Your task to perform on an android device: turn off data saver in the chrome app Image 0: 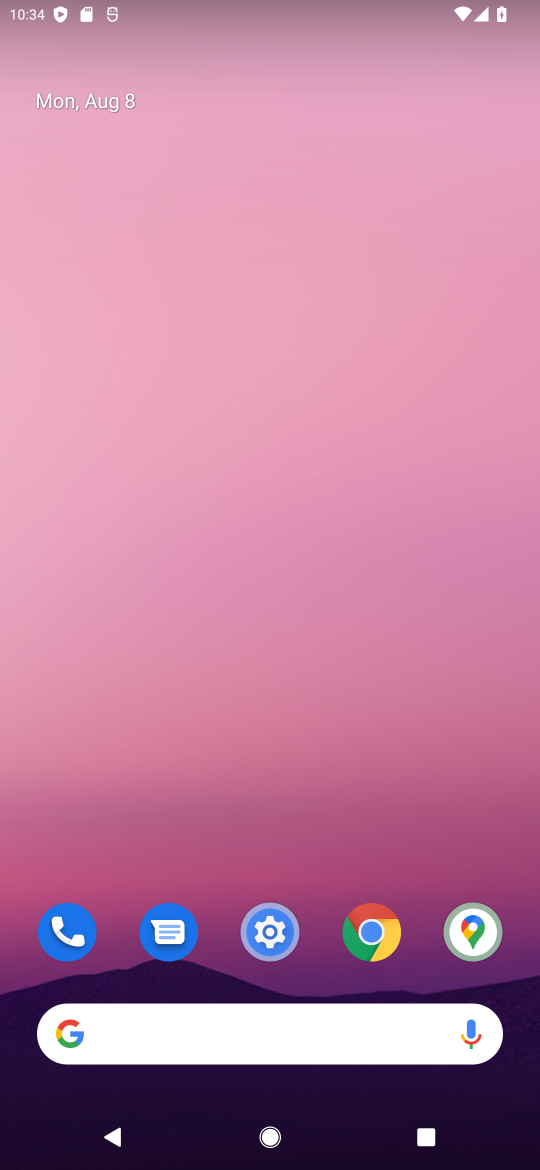
Step 0: click (362, 938)
Your task to perform on an android device: turn off data saver in the chrome app Image 1: 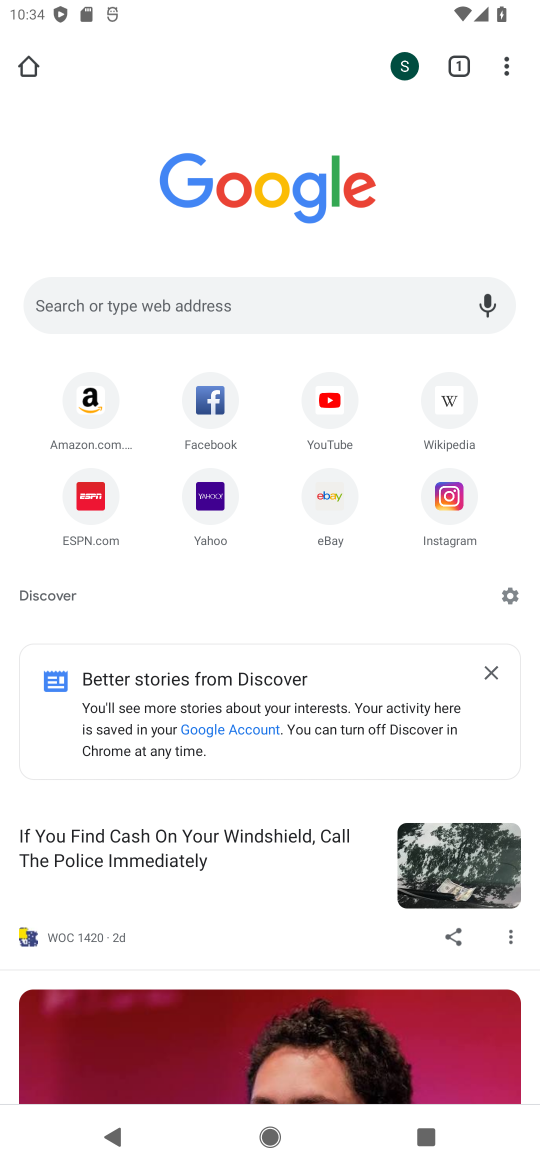
Step 1: click (521, 73)
Your task to perform on an android device: turn off data saver in the chrome app Image 2: 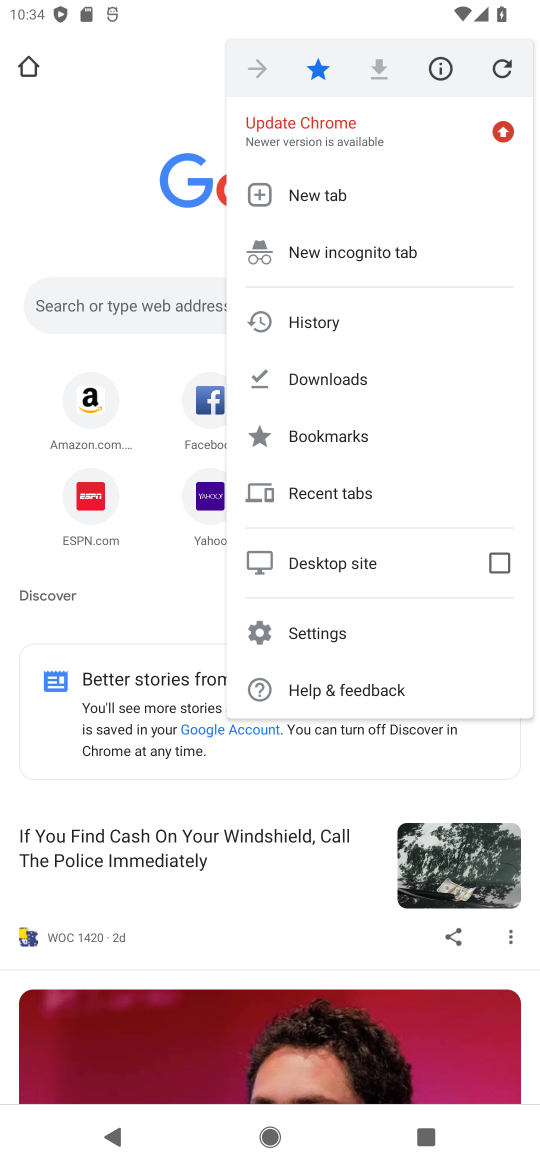
Step 2: click (340, 645)
Your task to perform on an android device: turn off data saver in the chrome app Image 3: 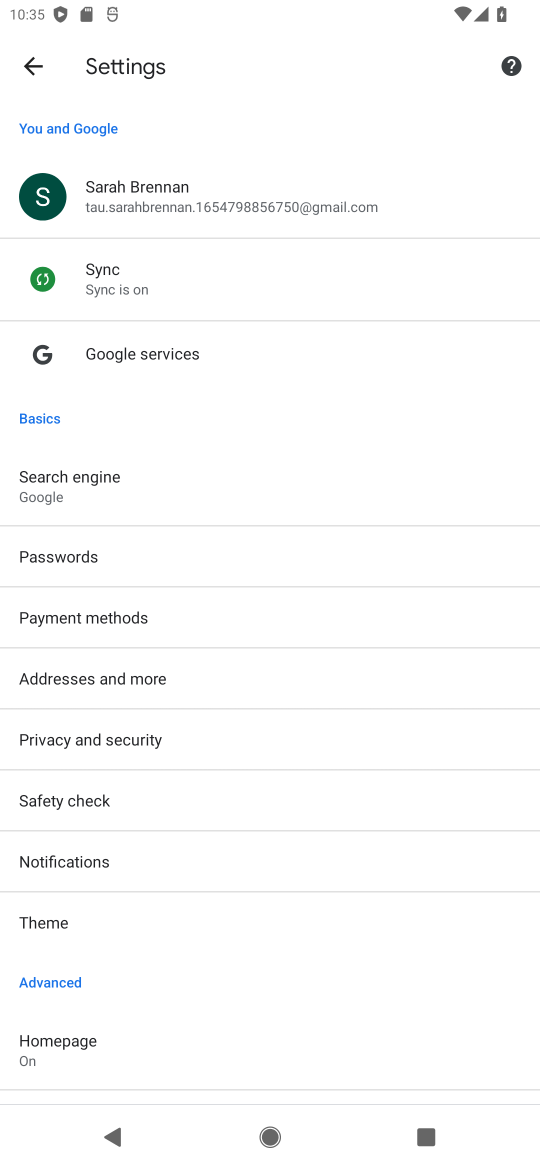
Step 3: drag from (98, 888) to (150, 366)
Your task to perform on an android device: turn off data saver in the chrome app Image 4: 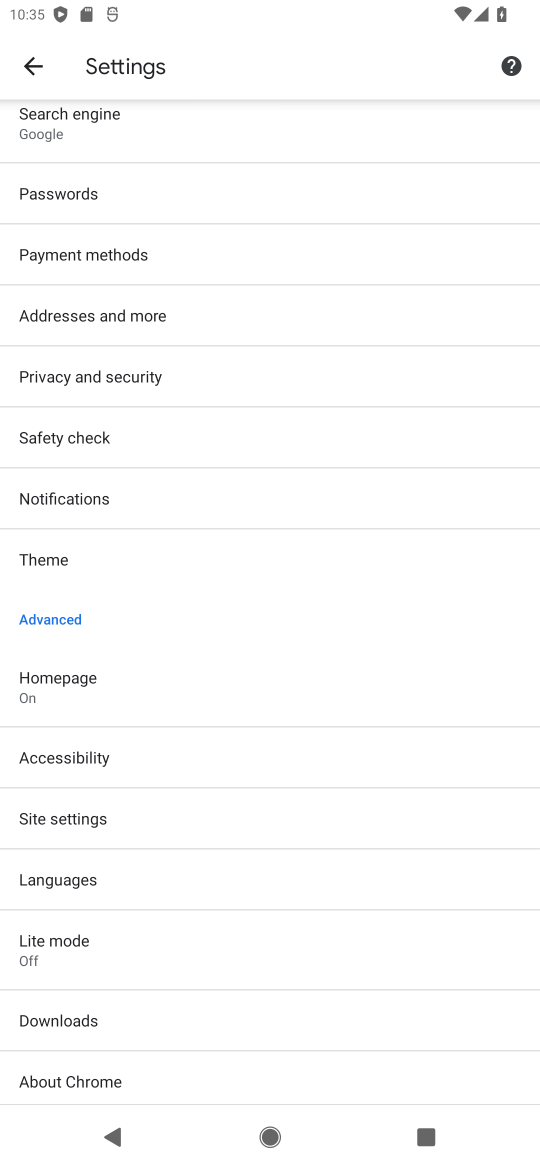
Step 4: drag from (204, 699) to (233, 408)
Your task to perform on an android device: turn off data saver in the chrome app Image 5: 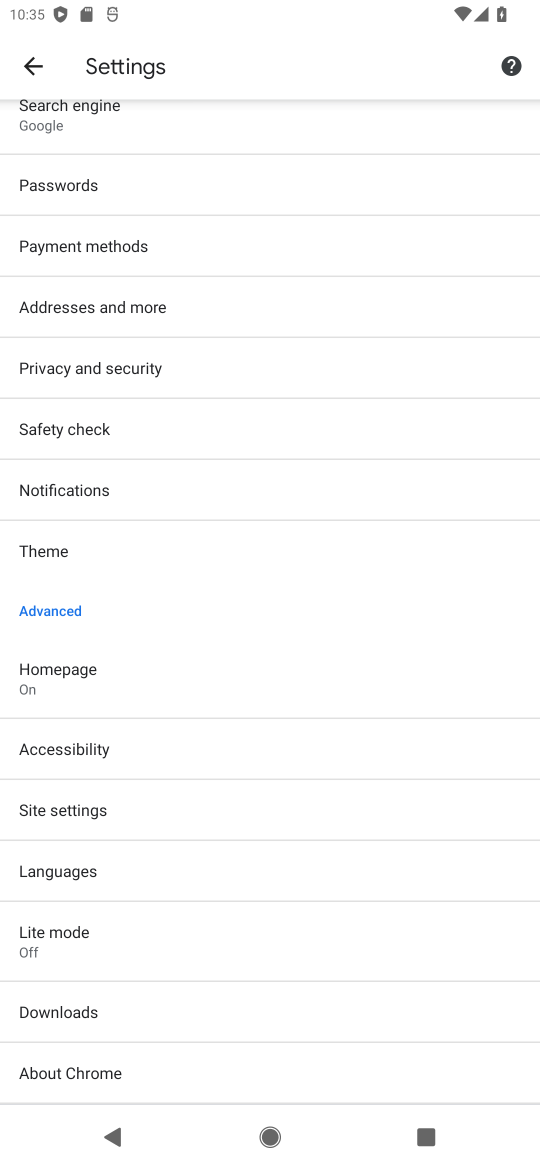
Step 5: click (138, 922)
Your task to perform on an android device: turn off data saver in the chrome app Image 6: 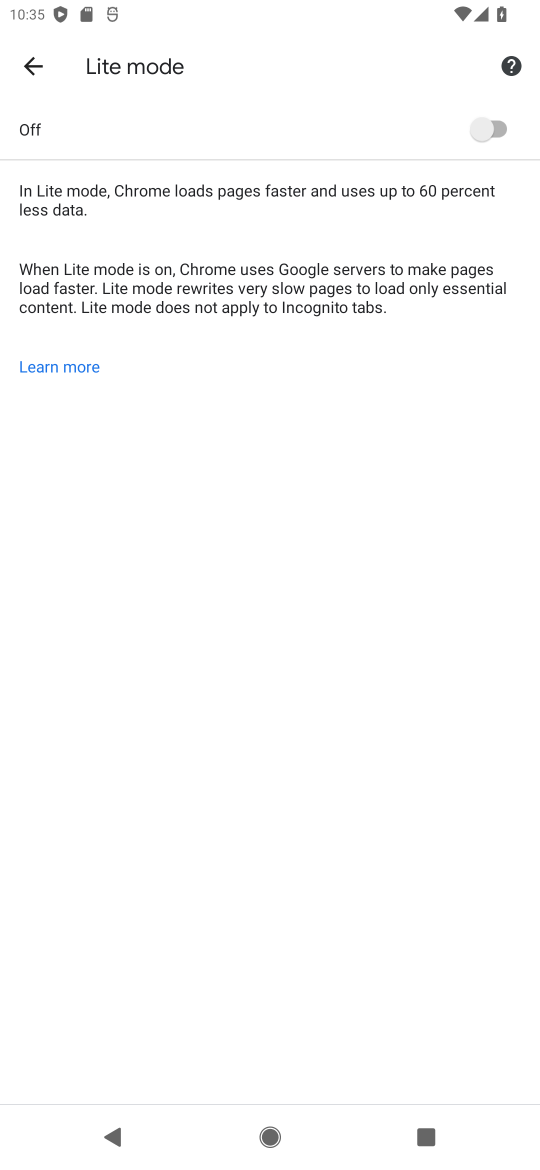
Step 6: task complete